Your task to perform on an android device: Show me popular games on the Play Store Image 0: 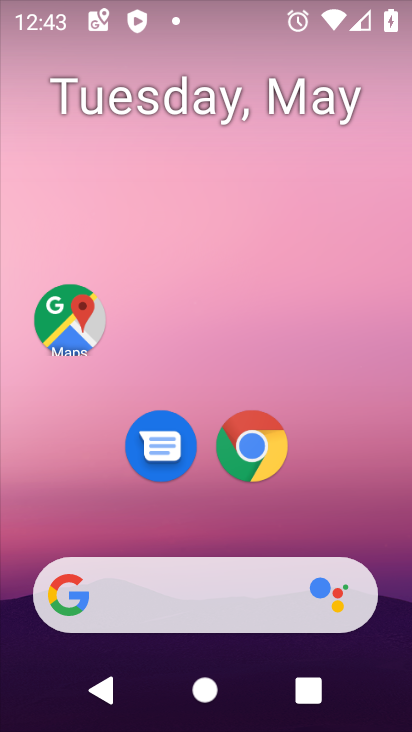
Step 0: drag from (350, 524) to (390, 120)
Your task to perform on an android device: Show me popular games on the Play Store Image 1: 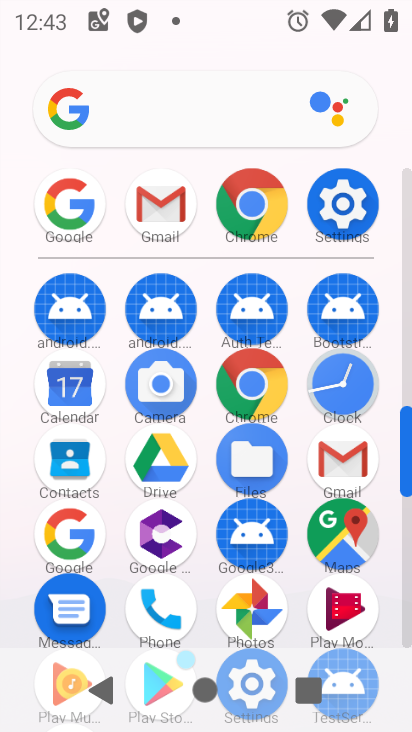
Step 1: drag from (179, 555) to (223, 344)
Your task to perform on an android device: Show me popular games on the Play Store Image 2: 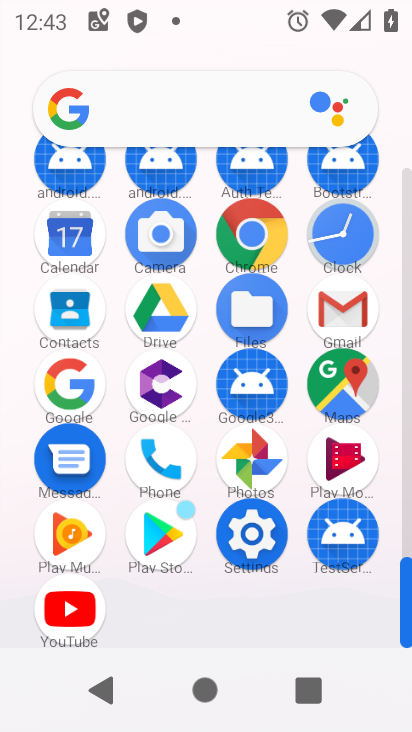
Step 2: drag from (207, 287) to (181, 421)
Your task to perform on an android device: Show me popular games on the Play Store Image 3: 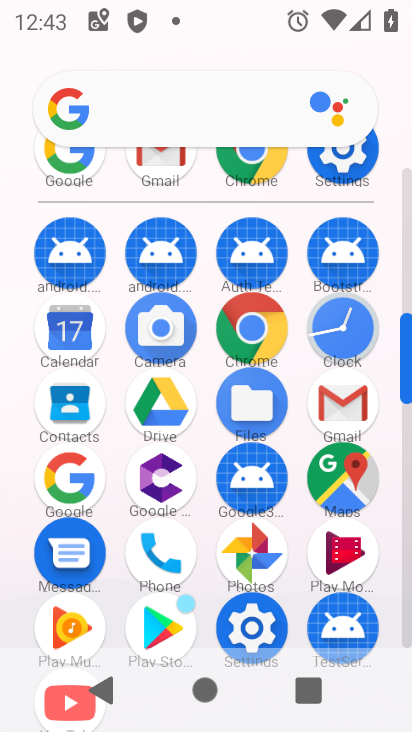
Step 3: drag from (222, 538) to (251, 369)
Your task to perform on an android device: Show me popular games on the Play Store Image 4: 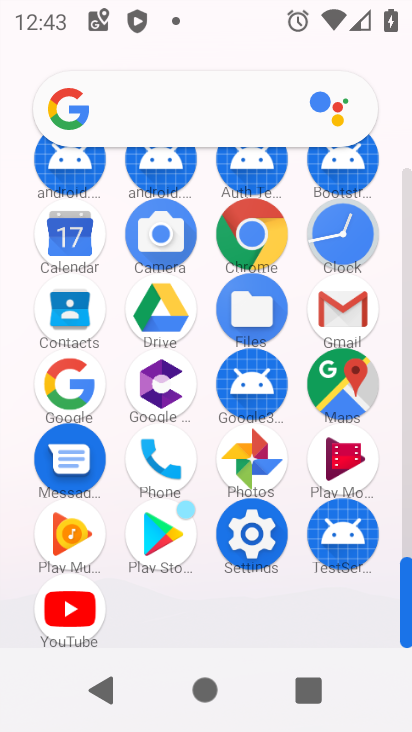
Step 4: click (165, 541)
Your task to perform on an android device: Show me popular games on the Play Store Image 5: 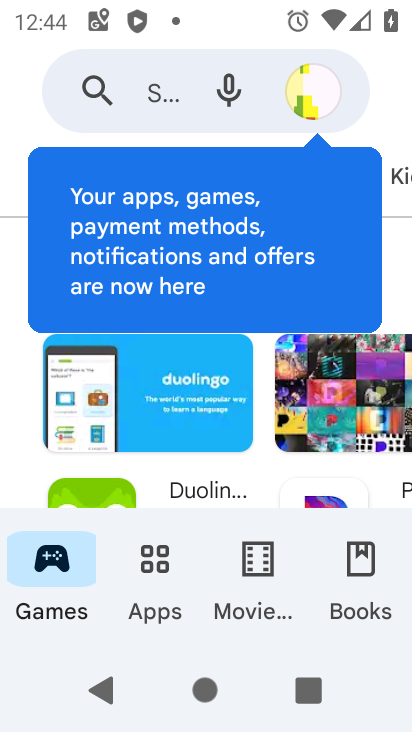
Step 5: click (147, 551)
Your task to perform on an android device: Show me popular games on the Play Store Image 6: 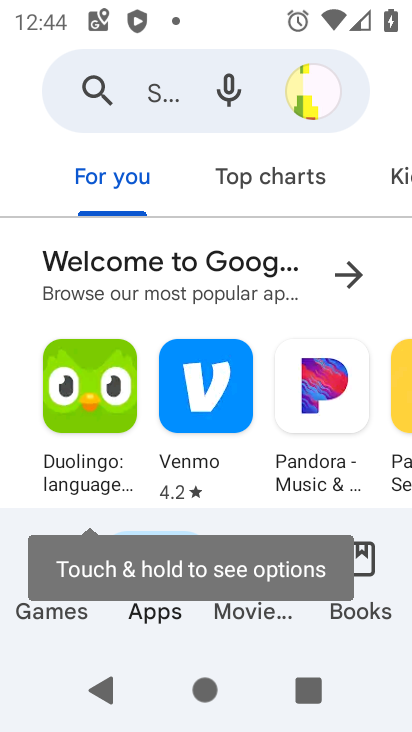
Step 6: task complete